Your task to perform on an android device: Open Chrome and go to settings Image 0: 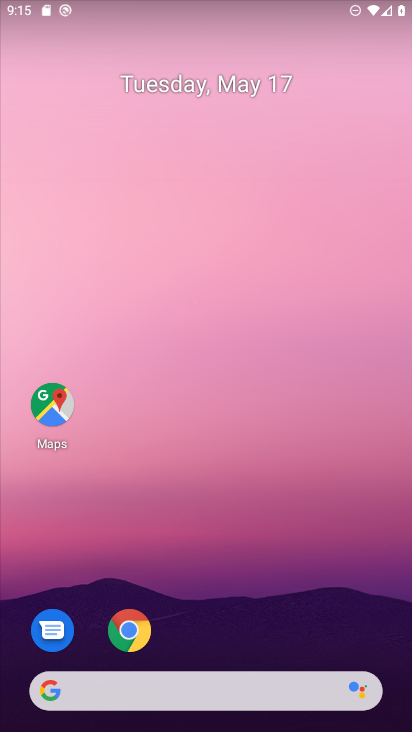
Step 0: drag from (358, 610) to (362, 174)
Your task to perform on an android device: Open Chrome and go to settings Image 1: 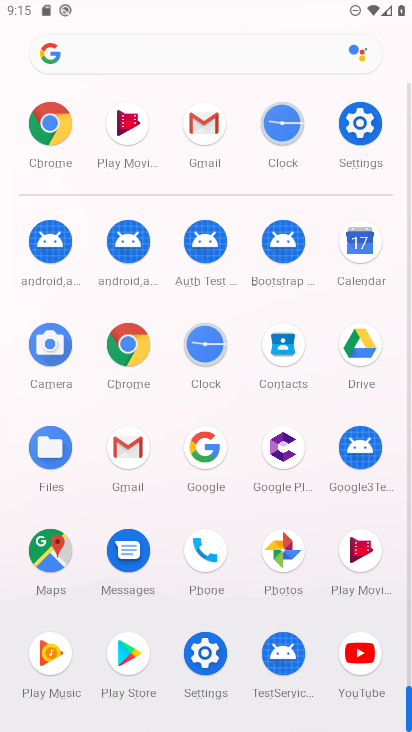
Step 1: click (127, 328)
Your task to perform on an android device: Open Chrome and go to settings Image 2: 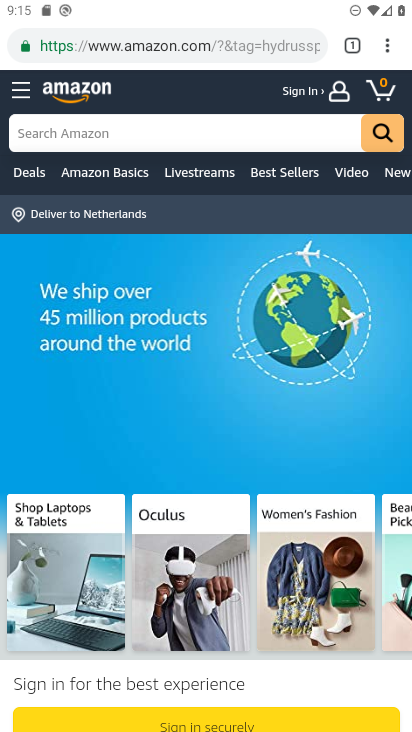
Step 2: click (388, 51)
Your task to perform on an android device: Open Chrome and go to settings Image 3: 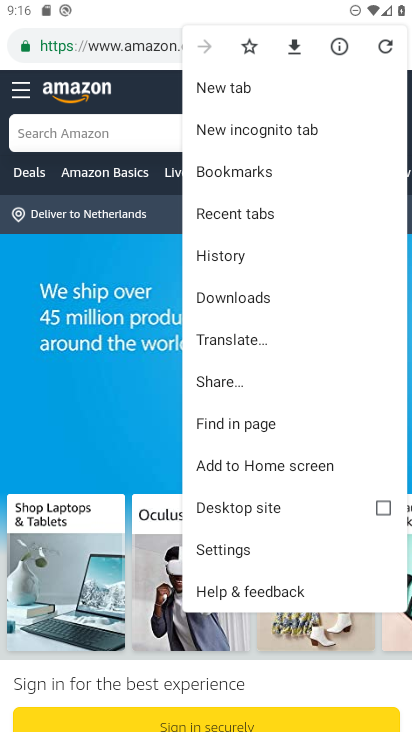
Step 3: click (259, 551)
Your task to perform on an android device: Open Chrome and go to settings Image 4: 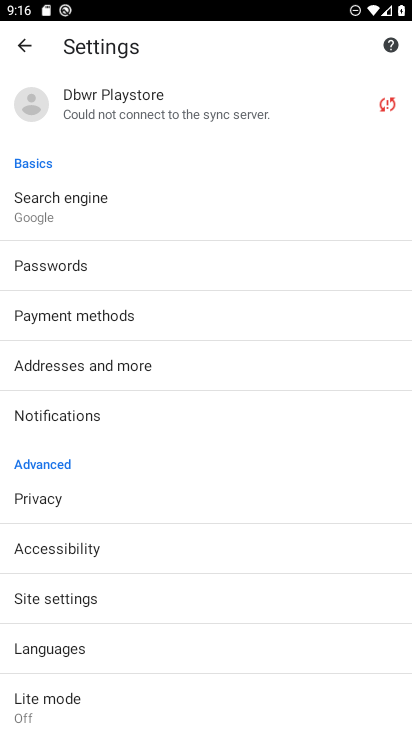
Step 4: task complete